Your task to perform on an android device: create a new album in the google photos Image 0: 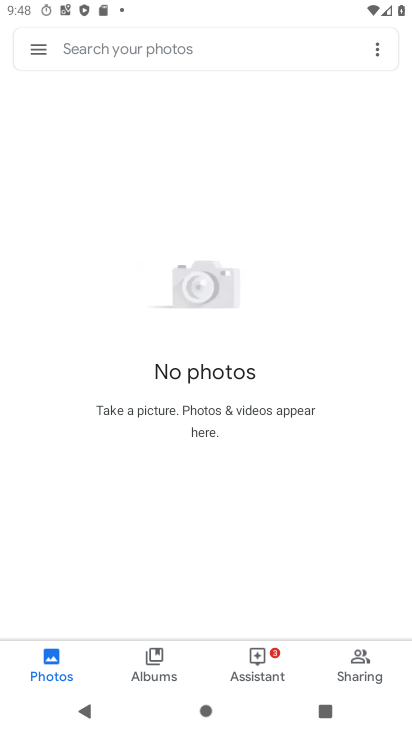
Step 0: task impossible